Your task to perform on an android device: Find coffee shops on Maps Image 0: 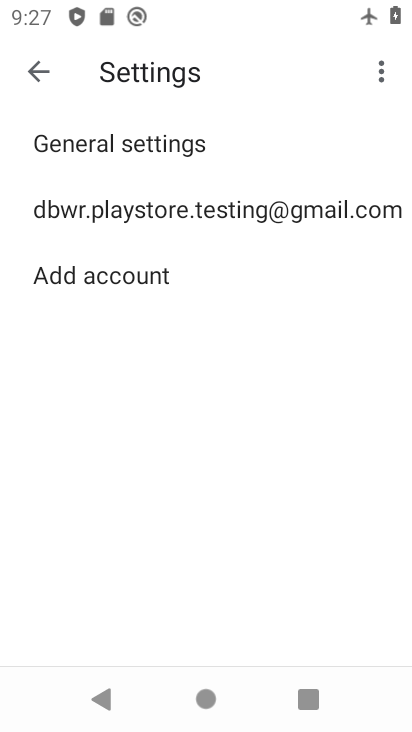
Step 0: press home button
Your task to perform on an android device: Find coffee shops on Maps Image 1: 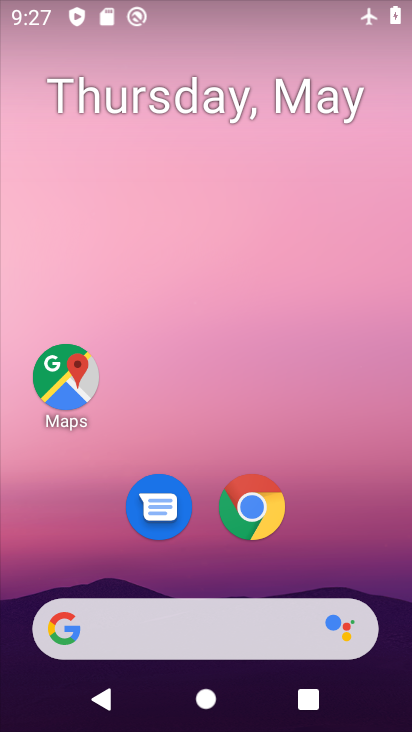
Step 1: drag from (214, 626) to (321, 92)
Your task to perform on an android device: Find coffee shops on Maps Image 2: 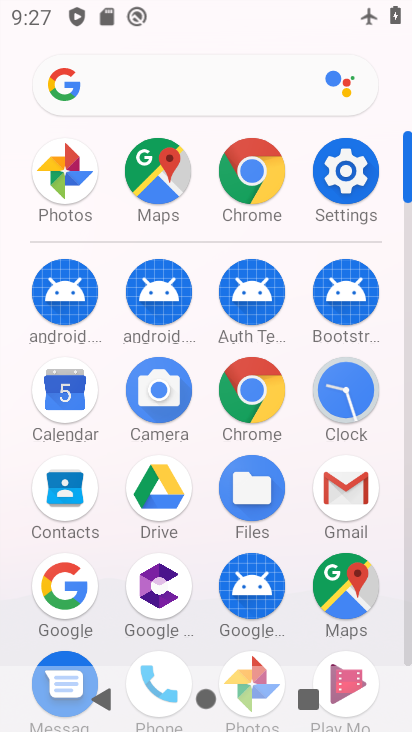
Step 2: click (351, 592)
Your task to perform on an android device: Find coffee shops on Maps Image 3: 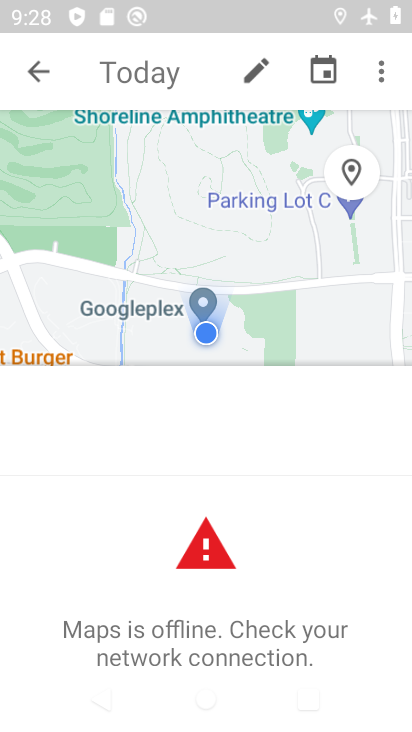
Step 3: click (44, 77)
Your task to perform on an android device: Find coffee shops on Maps Image 4: 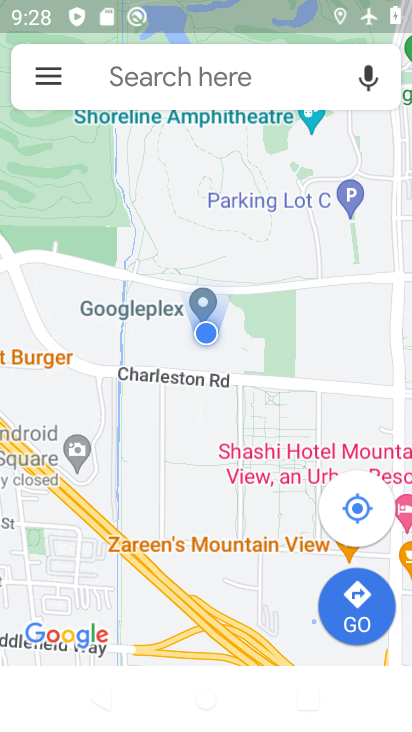
Step 4: click (162, 82)
Your task to perform on an android device: Find coffee shops on Maps Image 5: 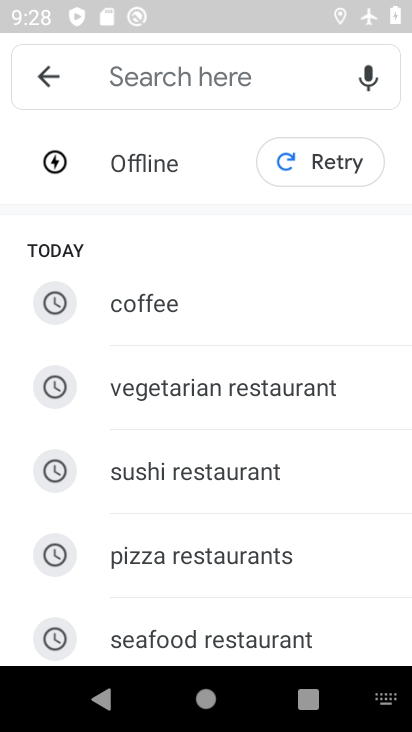
Step 5: type "coffee shops"
Your task to perform on an android device: Find coffee shops on Maps Image 6: 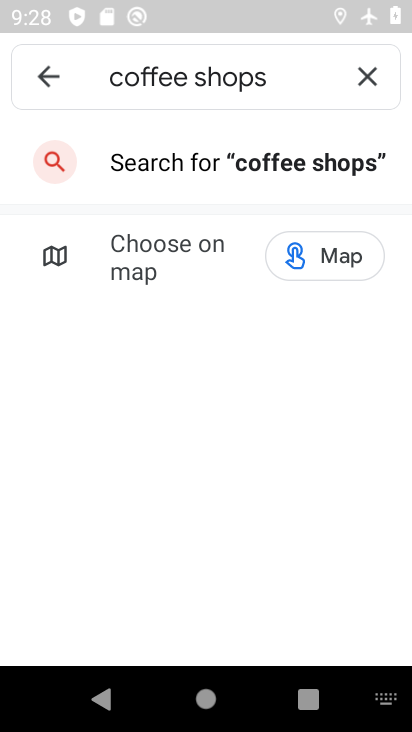
Step 6: click (311, 169)
Your task to perform on an android device: Find coffee shops on Maps Image 7: 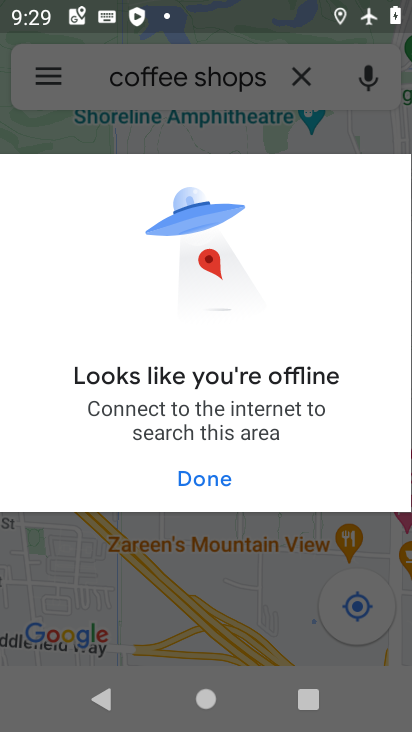
Step 7: task complete